Your task to perform on an android device: Go to battery settings Image 0: 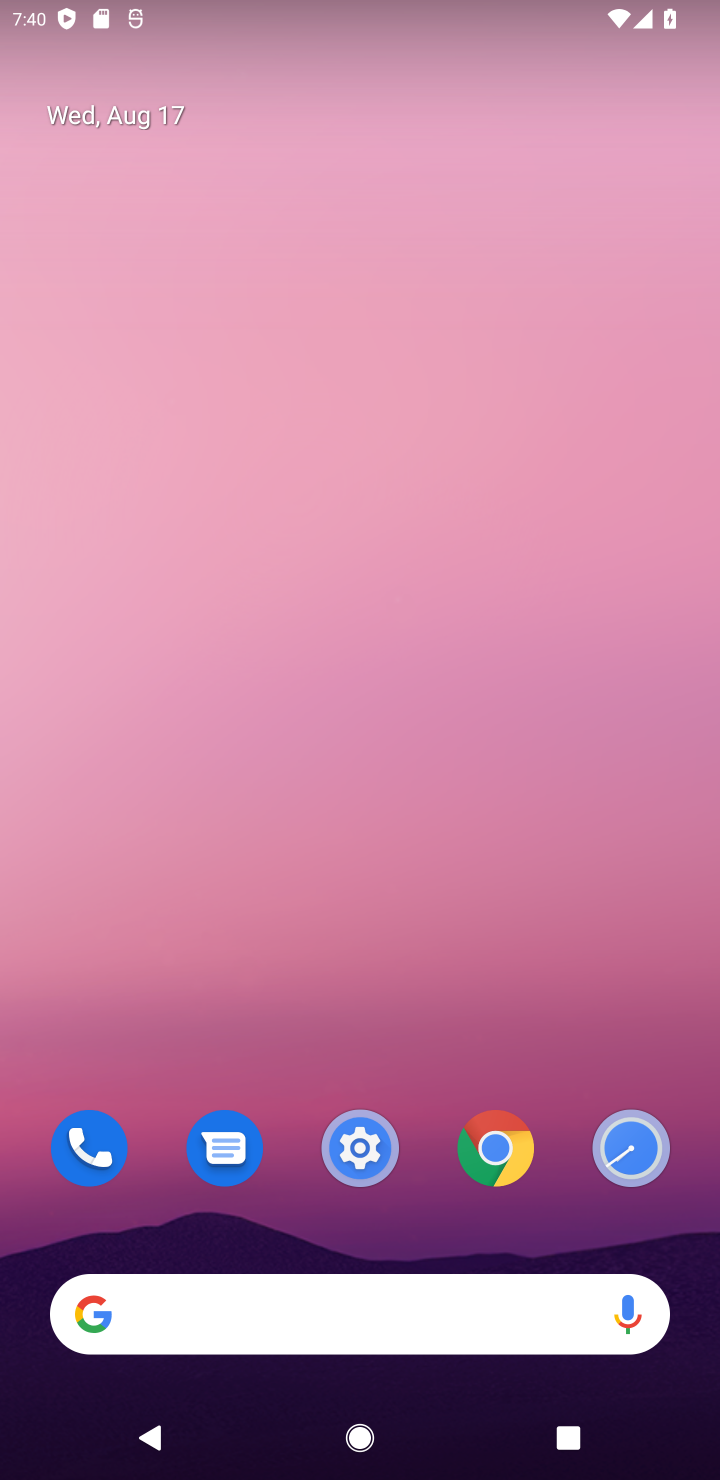
Step 0: drag from (332, 832) to (332, 487)
Your task to perform on an android device: Go to battery settings Image 1: 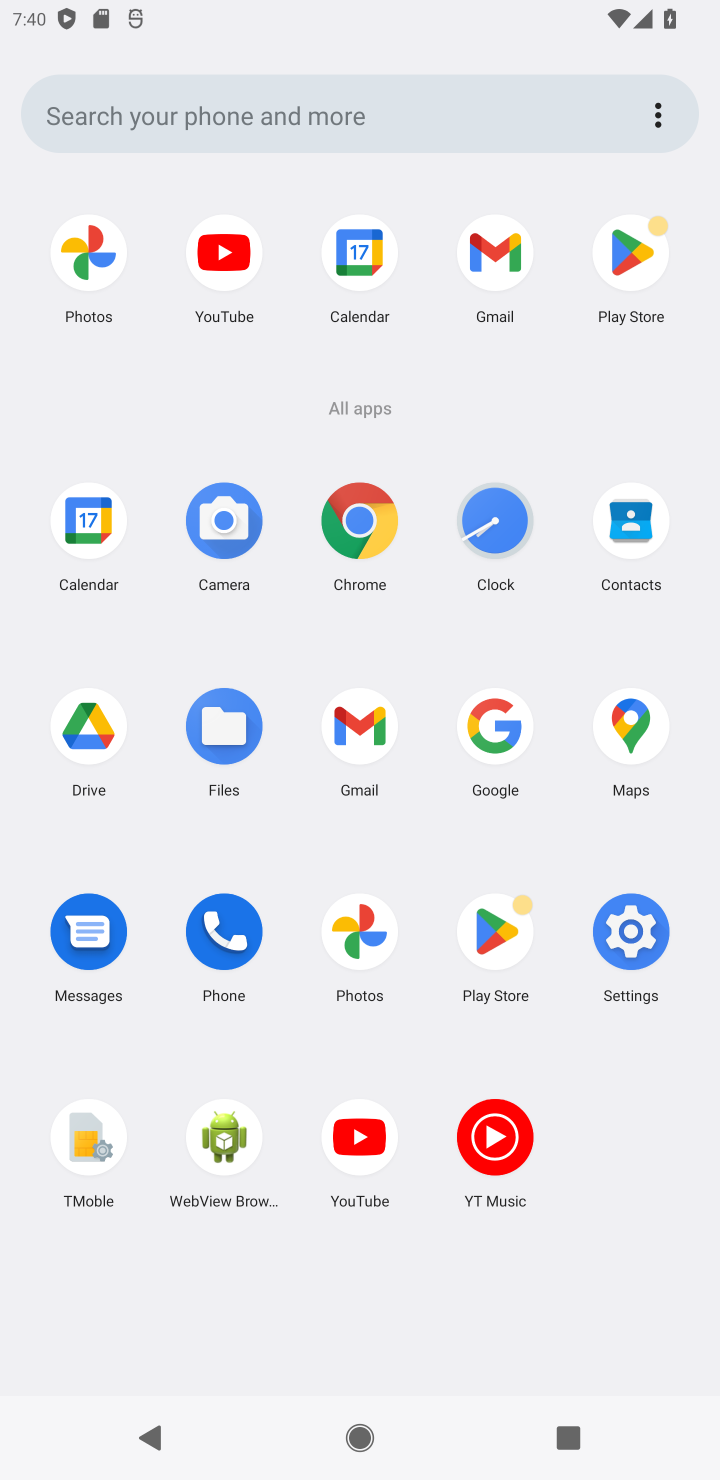
Step 1: click (634, 928)
Your task to perform on an android device: Go to battery settings Image 2: 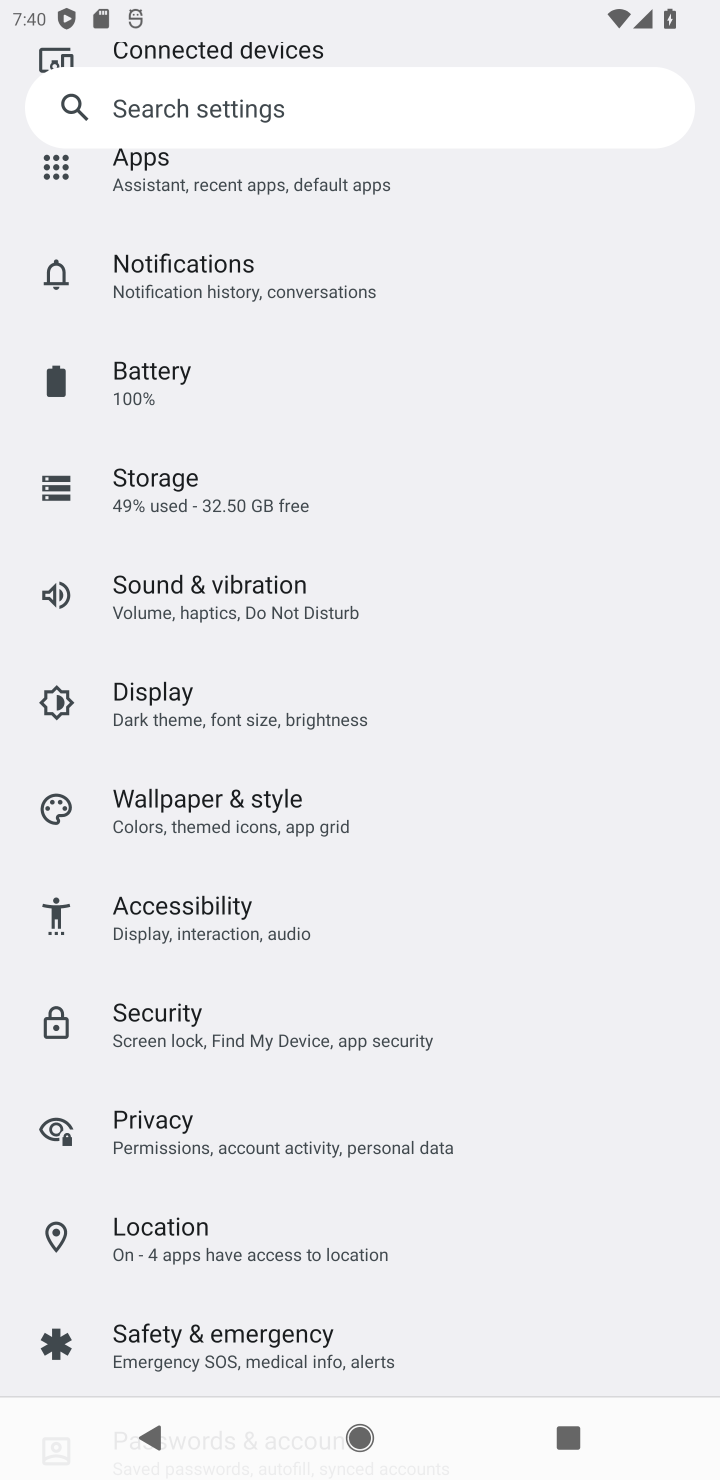
Step 2: click (141, 380)
Your task to perform on an android device: Go to battery settings Image 3: 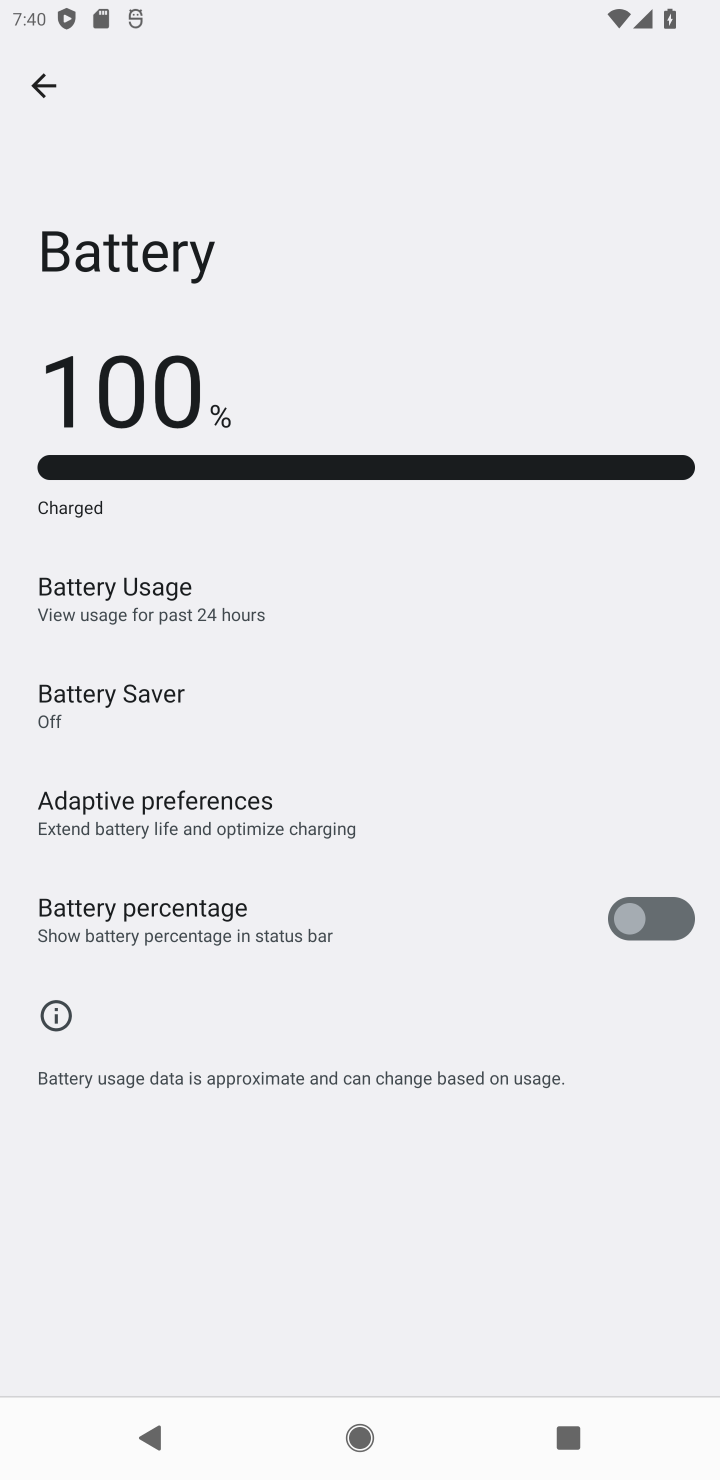
Step 3: task complete